Your task to perform on an android device: open app "Gmail" (install if not already installed), go to login, and select forgot password Image 0: 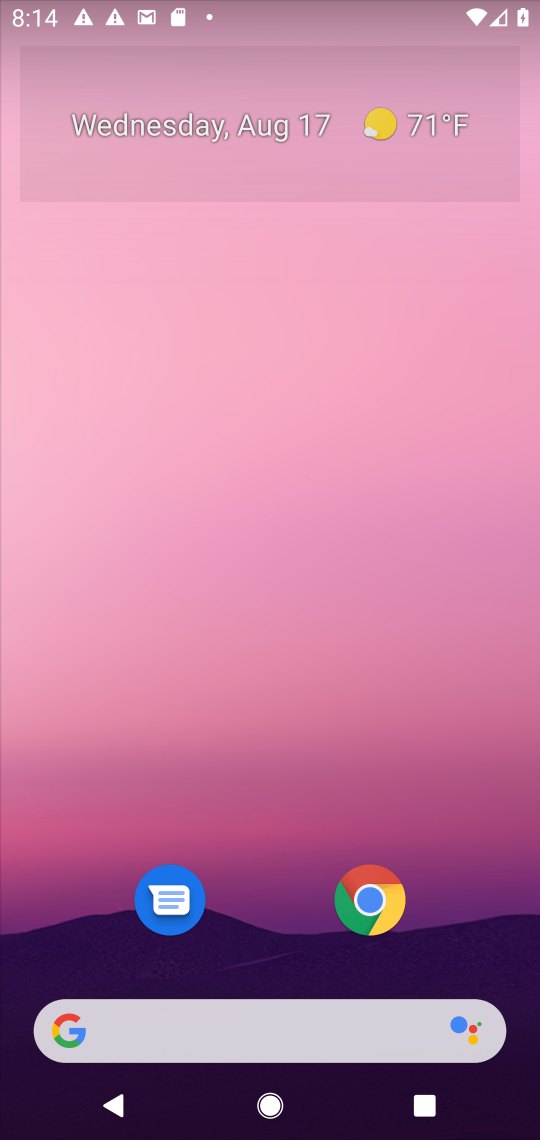
Step 0: drag from (51, 948) to (270, 78)
Your task to perform on an android device: open app "Gmail" (install if not already installed), go to login, and select forgot password Image 1: 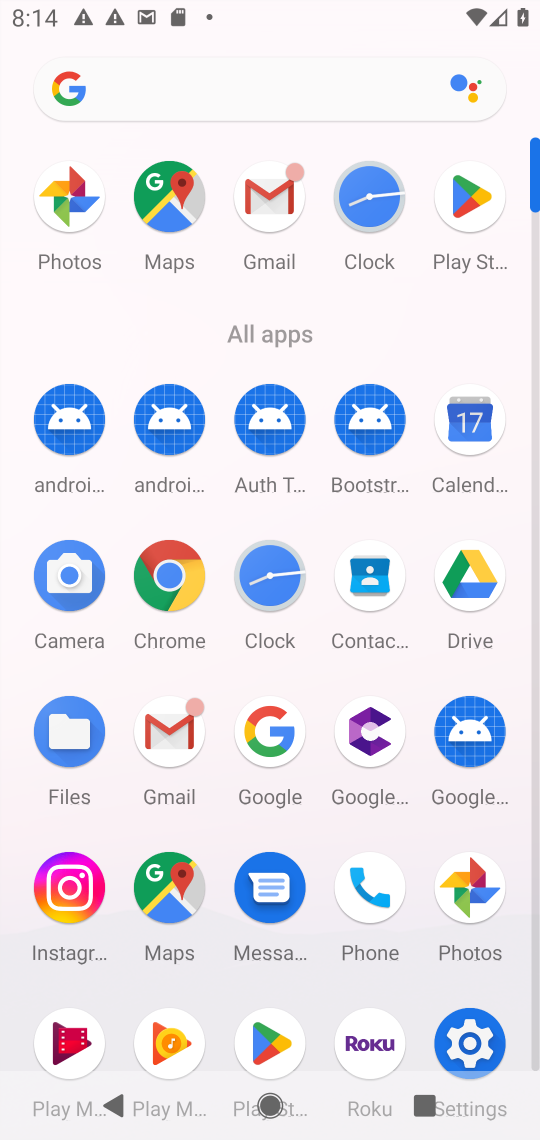
Step 1: click (482, 204)
Your task to perform on an android device: open app "Gmail" (install if not already installed), go to login, and select forgot password Image 2: 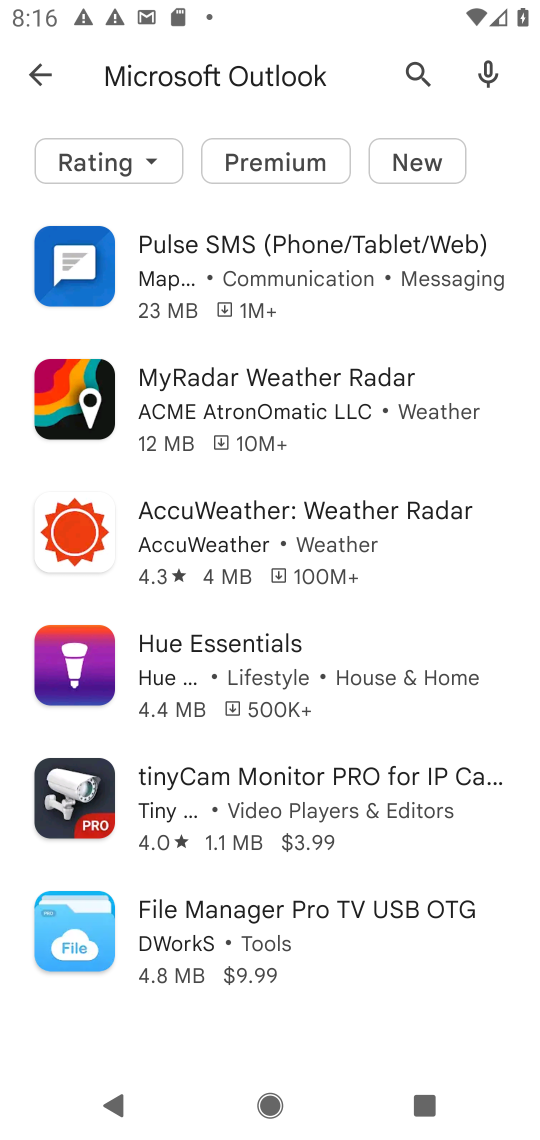
Step 2: click (47, 78)
Your task to perform on an android device: open app "Gmail" (install if not already installed), go to login, and select forgot password Image 3: 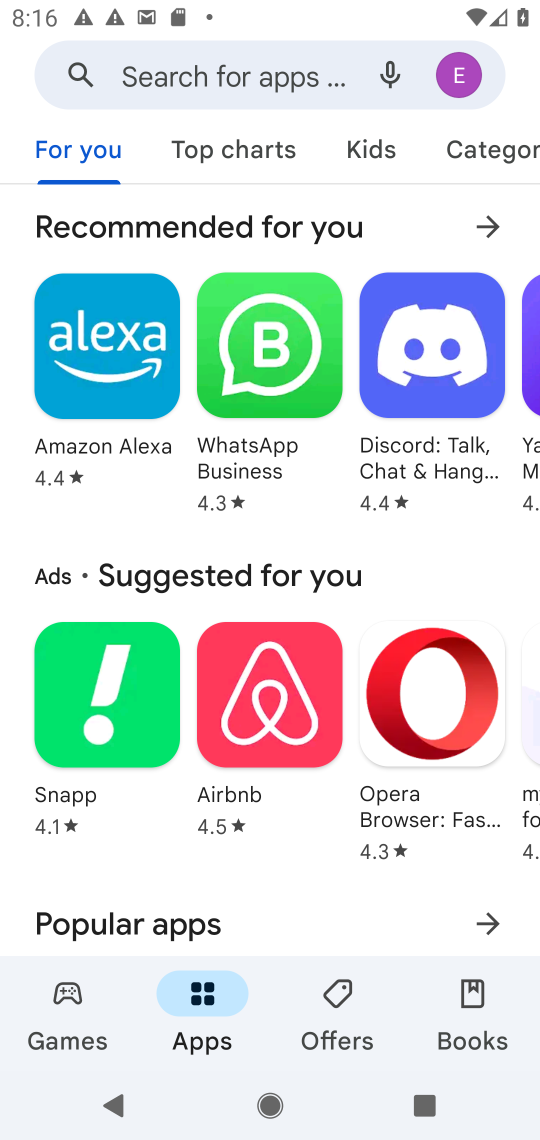
Step 3: click (223, 75)
Your task to perform on an android device: open app "Gmail" (install if not already installed), go to login, and select forgot password Image 4: 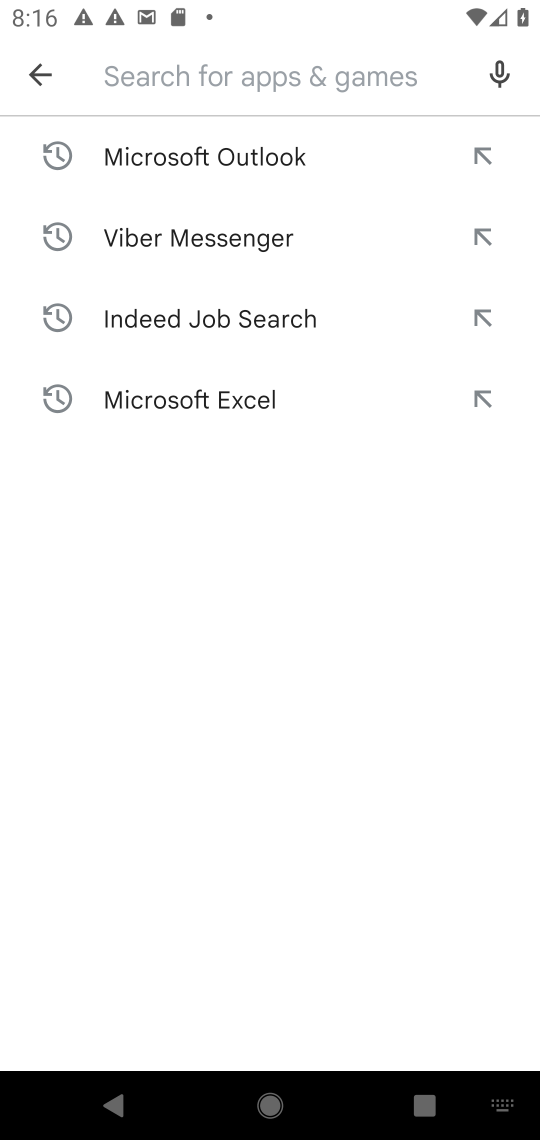
Step 4: type "Gmail"
Your task to perform on an android device: open app "Gmail" (install if not already installed), go to login, and select forgot password Image 5: 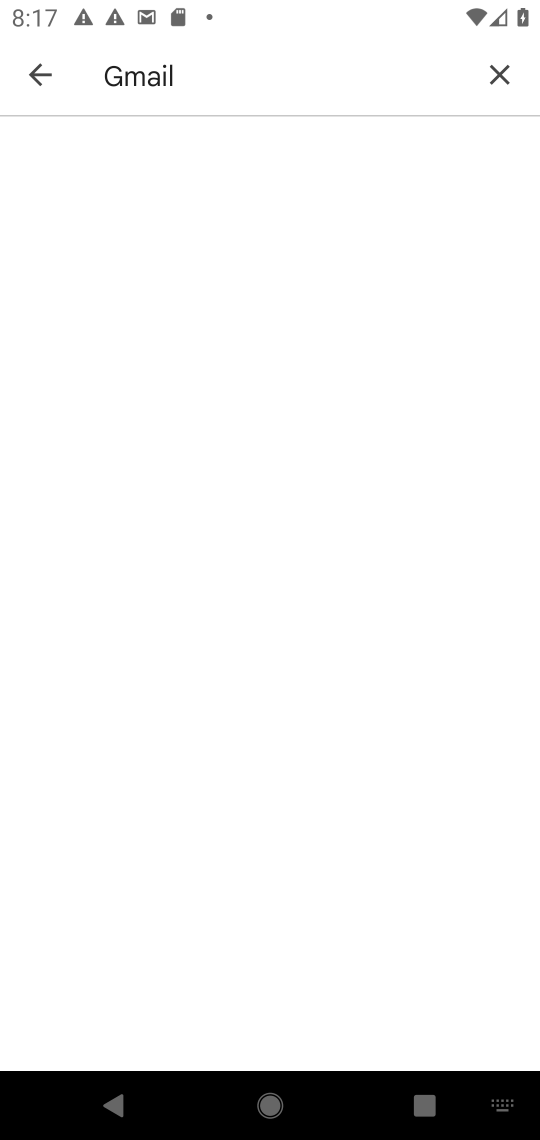
Step 5: press enter
Your task to perform on an android device: open app "Gmail" (install if not already installed), go to login, and select forgot password Image 6: 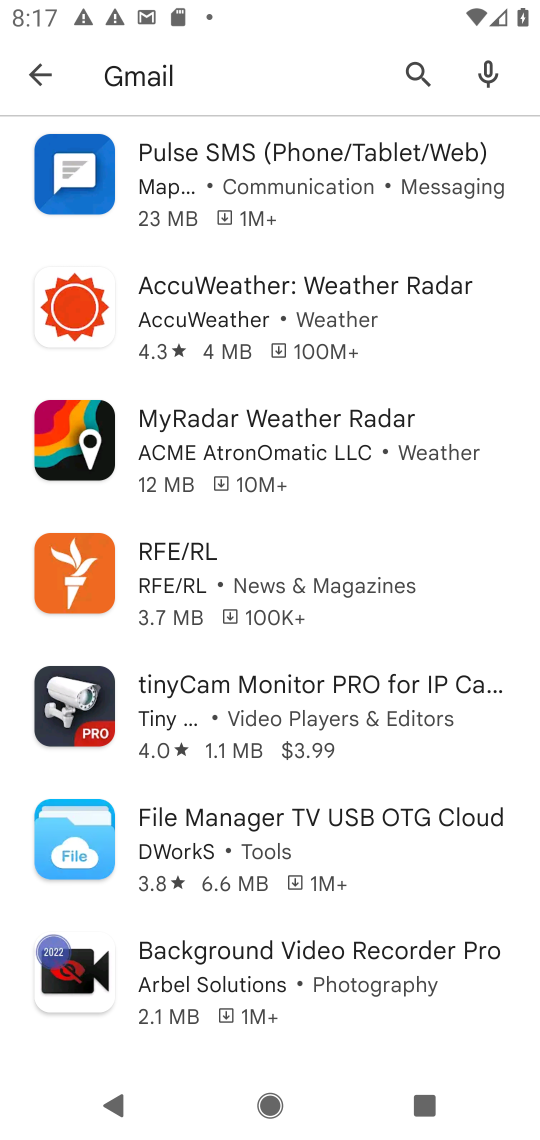
Step 6: click (42, 73)
Your task to perform on an android device: open app "Gmail" (install if not already installed), go to login, and select forgot password Image 7: 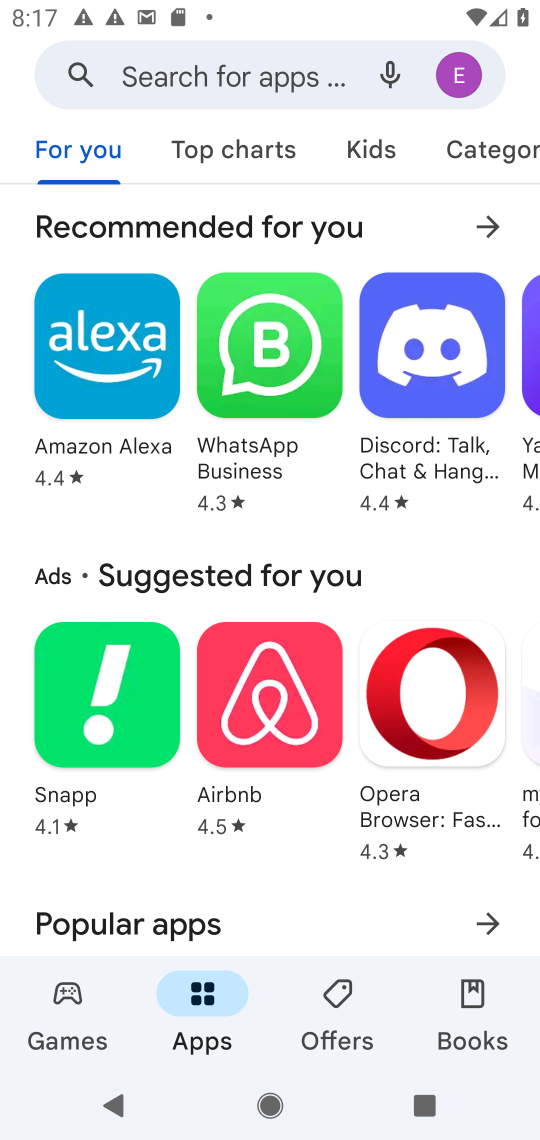
Step 7: press home button
Your task to perform on an android device: open app "Gmail" (install if not already installed), go to login, and select forgot password Image 8: 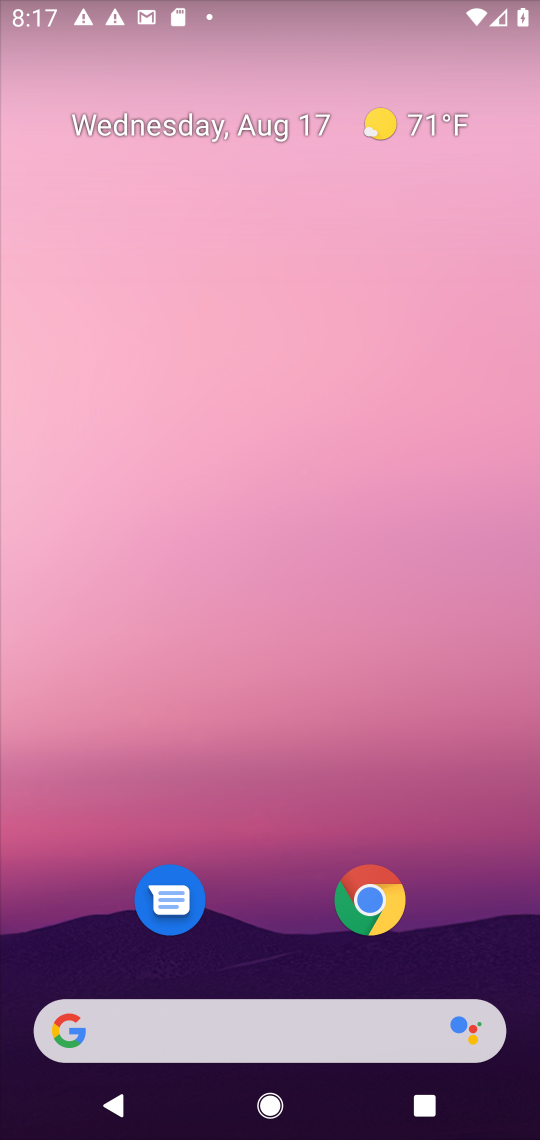
Step 8: drag from (286, 895) to (430, 7)
Your task to perform on an android device: open app "Gmail" (install if not already installed), go to login, and select forgot password Image 9: 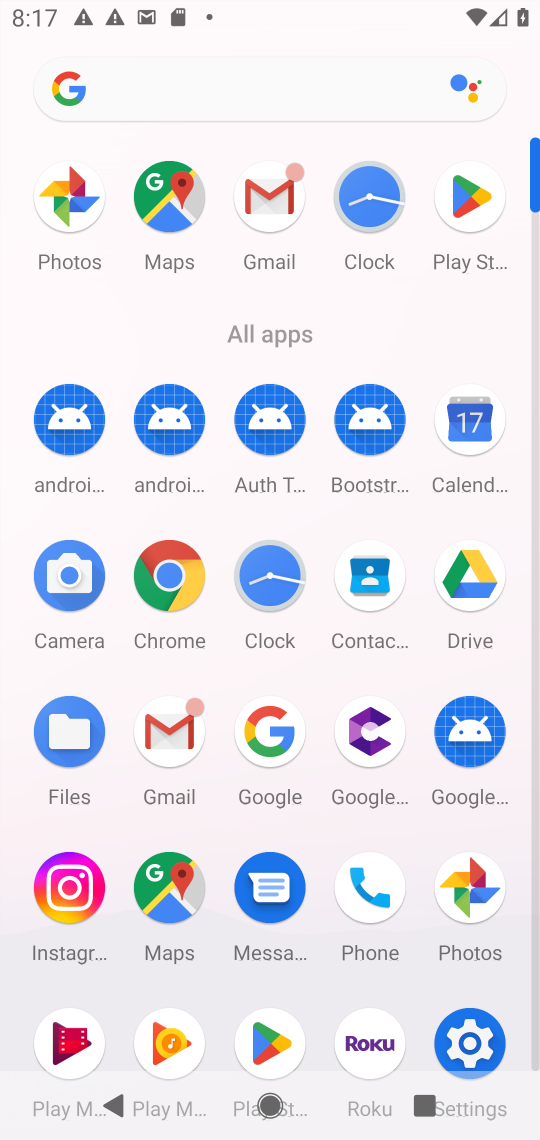
Step 9: click (265, 201)
Your task to perform on an android device: open app "Gmail" (install if not already installed), go to login, and select forgot password Image 10: 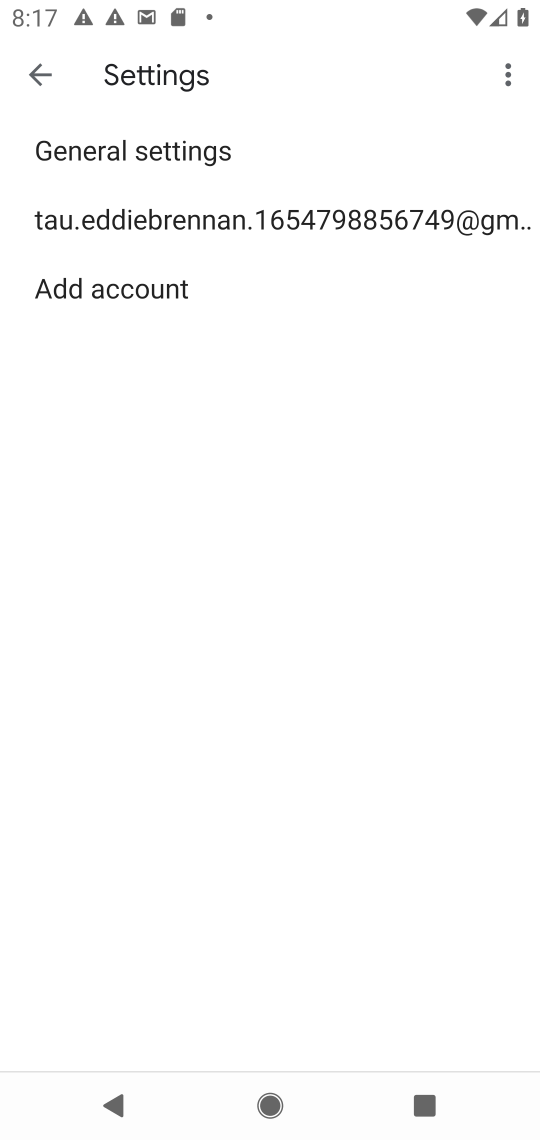
Step 10: click (47, 85)
Your task to perform on an android device: open app "Gmail" (install if not already installed), go to login, and select forgot password Image 11: 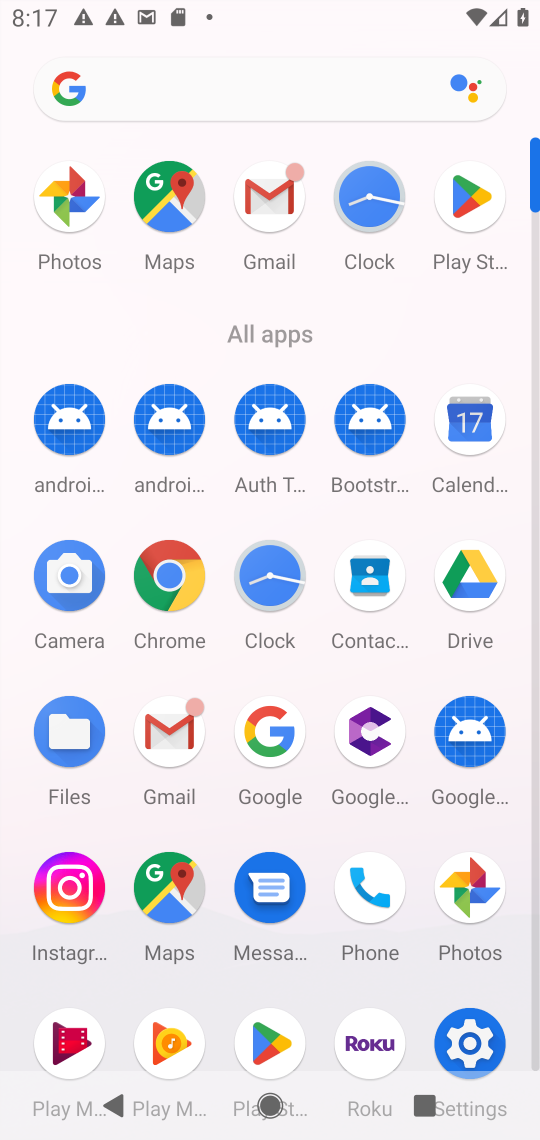
Step 11: click (261, 222)
Your task to perform on an android device: open app "Gmail" (install if not already installed), go to login, and select forgot password Image 12: 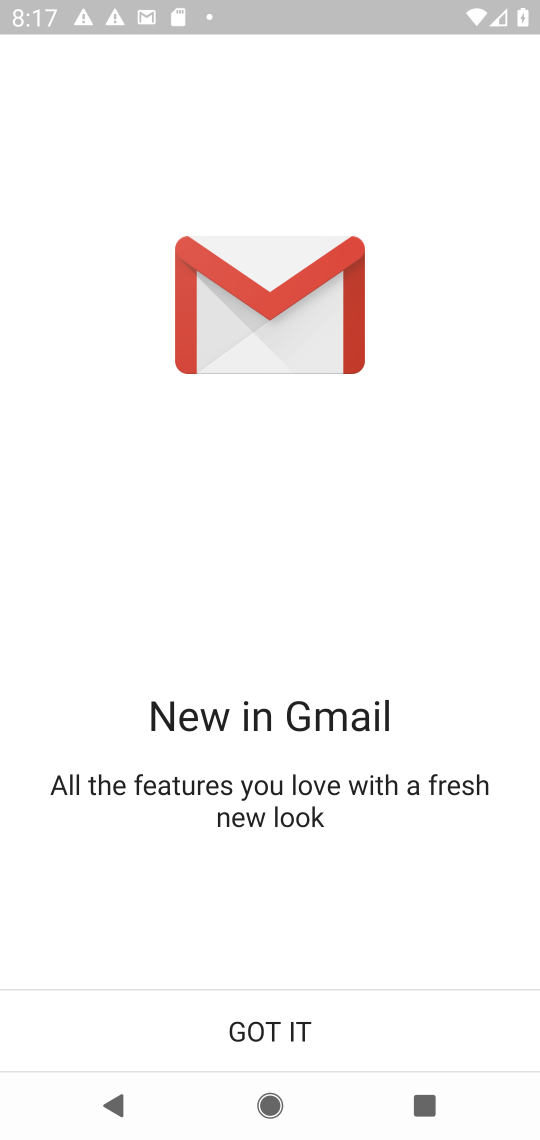
Step 12: click (256, 1025)
Your task to perform on an android device: open app "Gmail" (install if not already installed), go to login, and select forgot password Image 13: 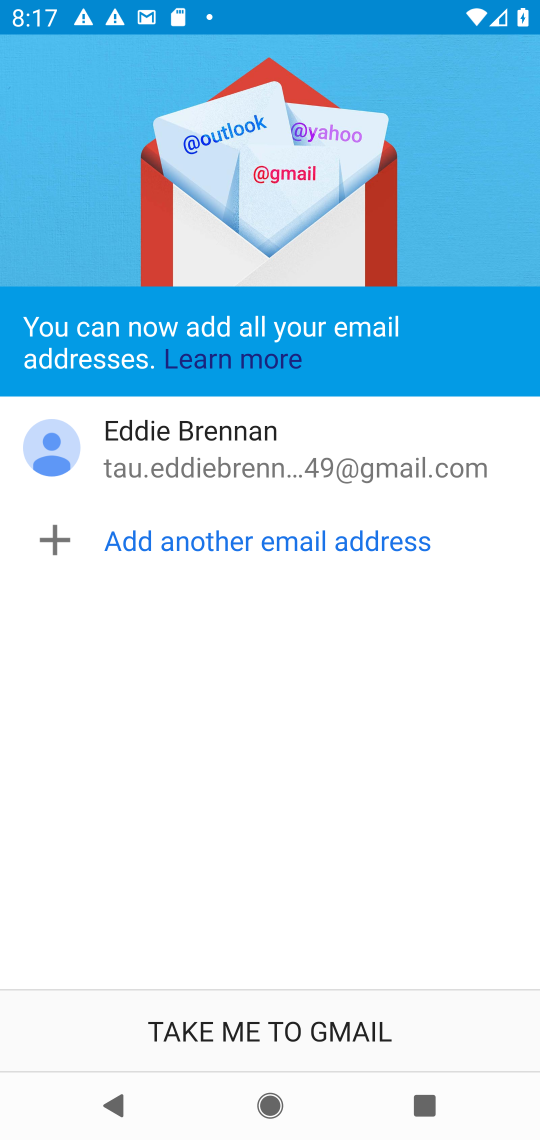
Step 13: click (256, 1026)
Your task to perform on an android device: open app "Gmail" (install if not already installed), go to login, and select forgot password Image 14: 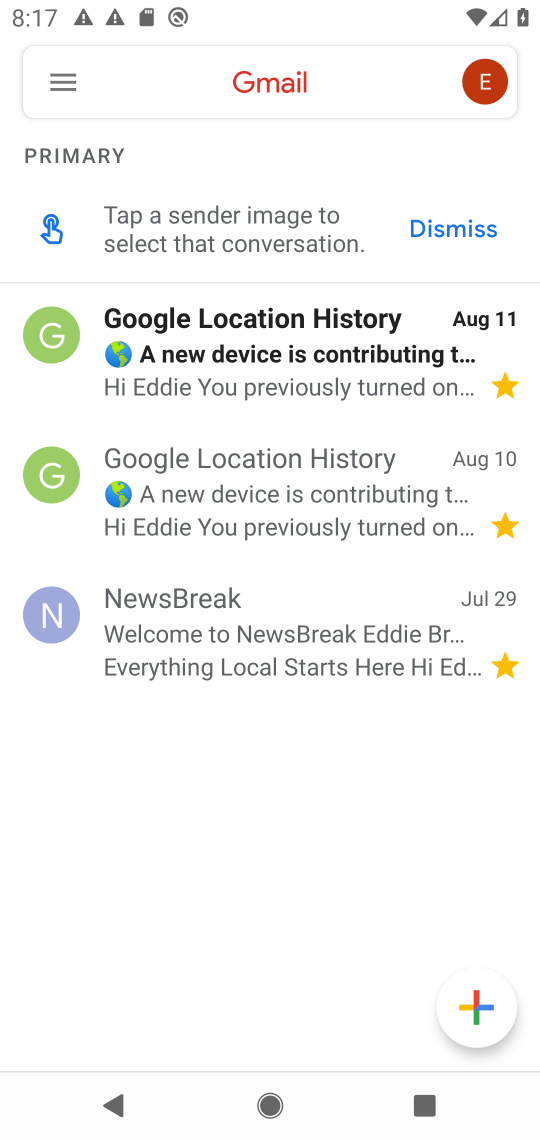
Step 14: click (487, 85)
Your task to perform on an android device: open app "Gmail" (install if not already installed), go to login, and select forgot password Image 15: 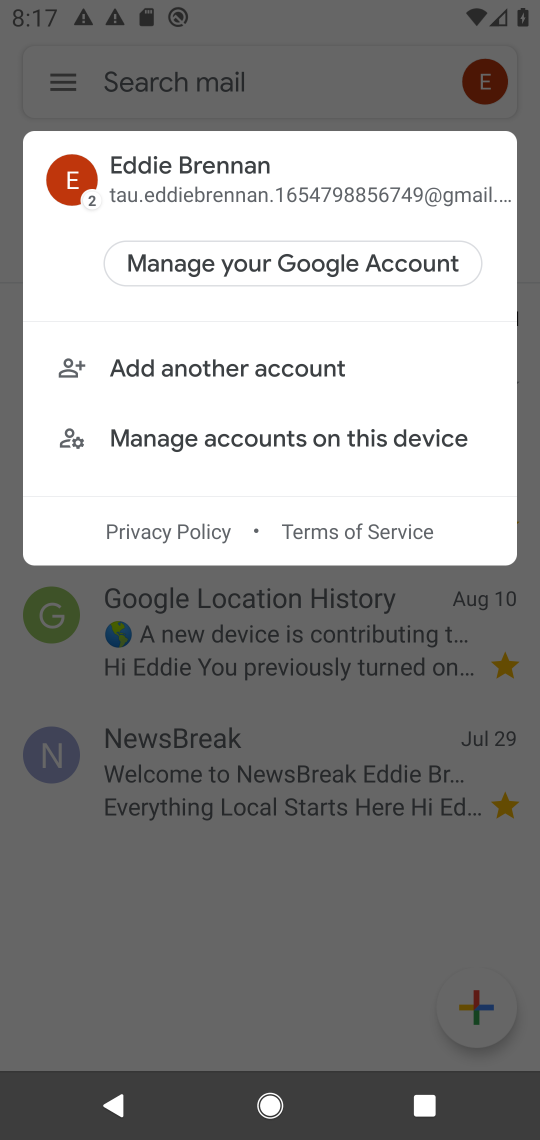
Step 15: click (176, 367)
Your task to perform on an android device: open app "Gmail" (install if not already installed), go to login, and select forgot password Image 16: 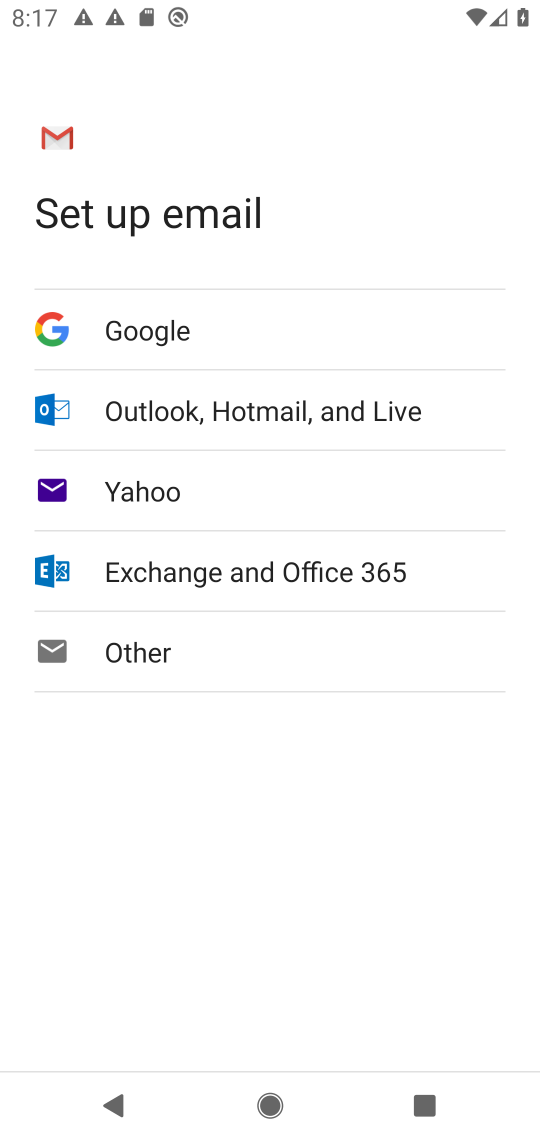
Step 16: click (177, 349)
Your task to perform on an android device: open app "Gmail" (install if not already installed), go to login, and select forgot password Image 17: 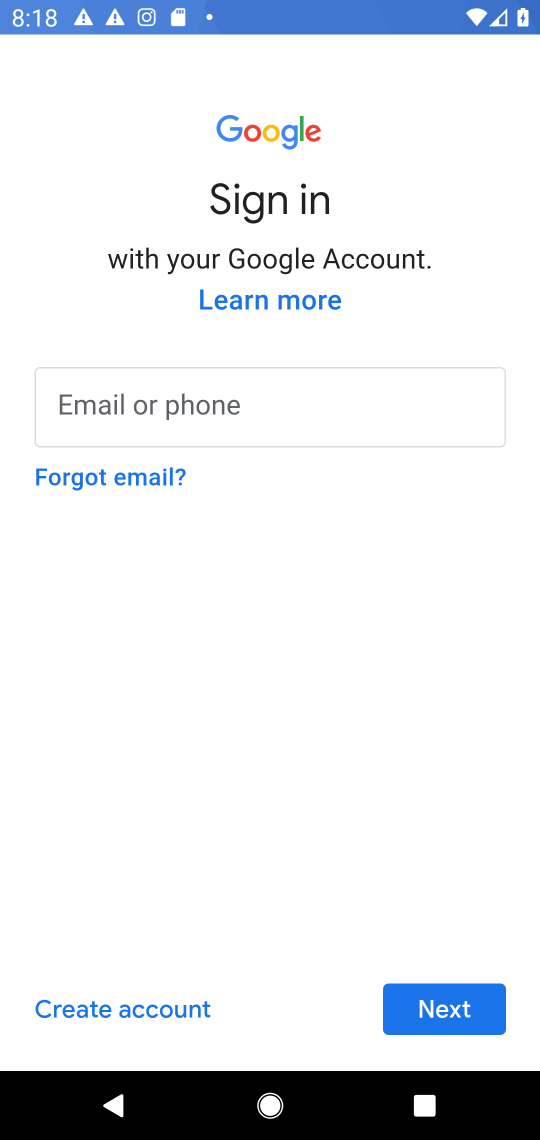
Step 17: click (146, 479)
Your task to perform on an android device: open app "Gmail" (install if not already installed), go to login, and select forgot password Image 18: 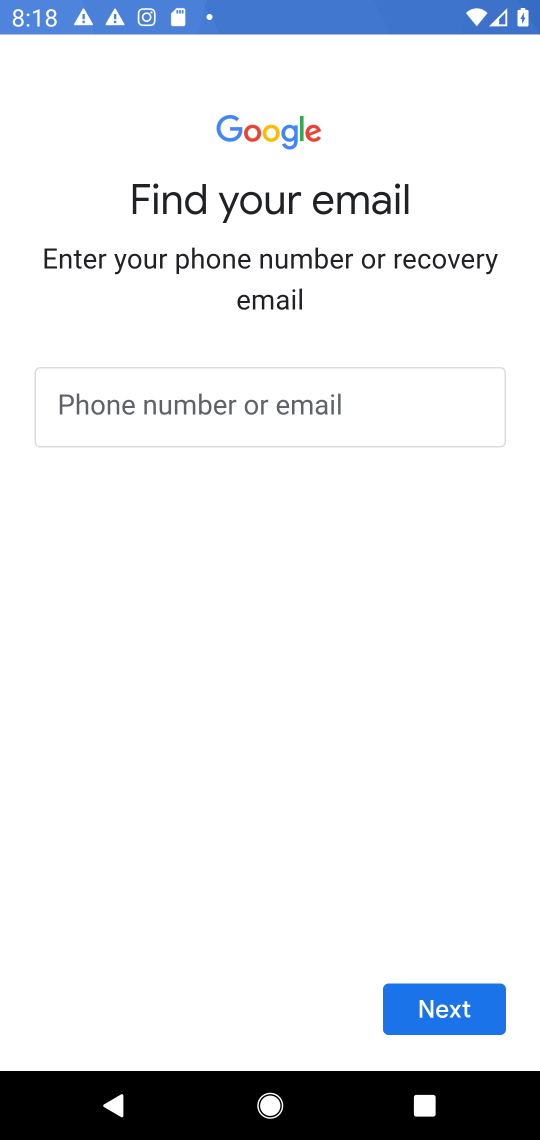
Step 18: task complete